Your task to perform on an android device: Open calendar and show me the fourth week of next month Image 0: 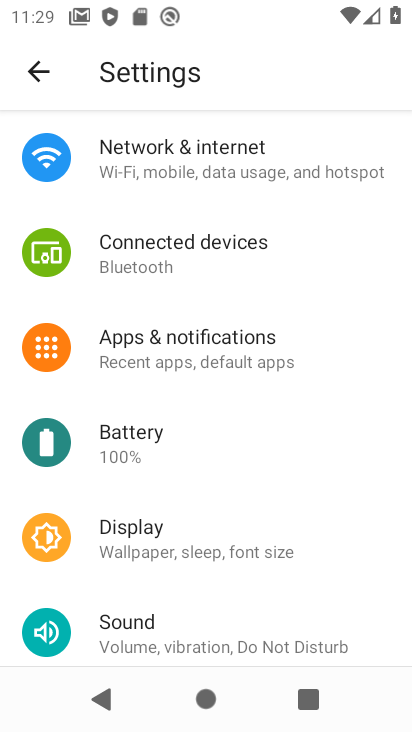
Step 0: press home button
Your task to perform on an android device: Open calendar and show me the fourth week of next month Image 1: 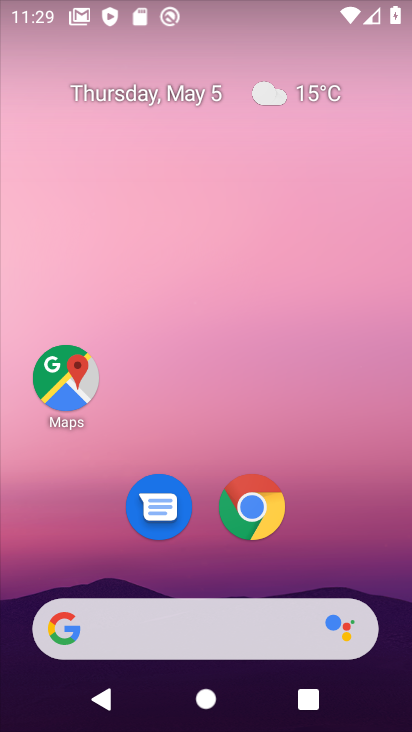
Step 1: drag from (322, 537) to (252, 139)
Your task to perform on an android device: Open calendar and show me the fourth week of next month Image 2: 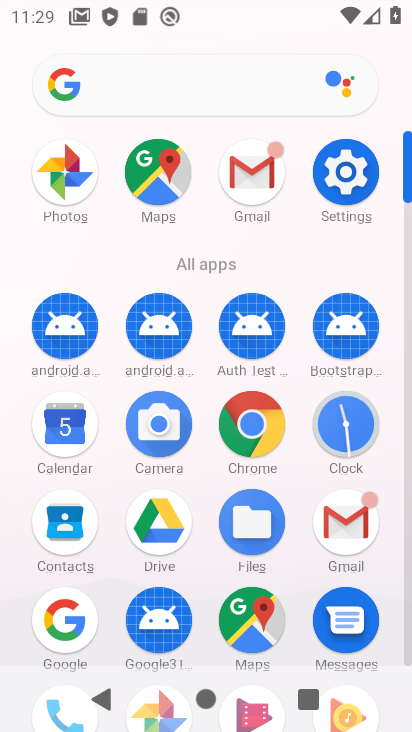
Step 2: click (69, 429)
Your task to perform on an android device: Open calendar and show me the fourth week of next month Image 3: 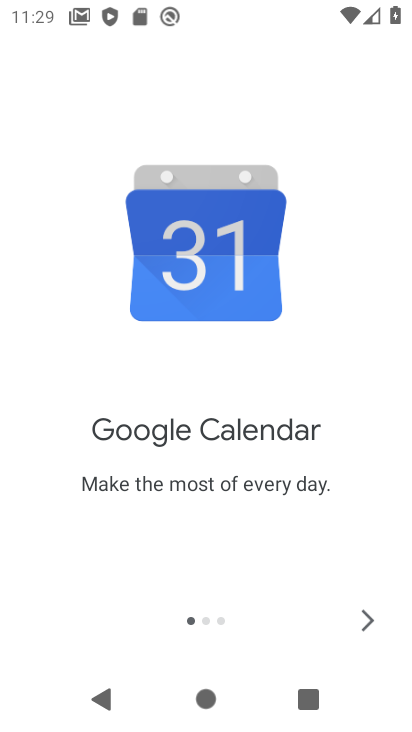
Step 3: click (368, 616)
Your task to perform on an android device: Open calendar and show me the fourth week of next month Image 4: 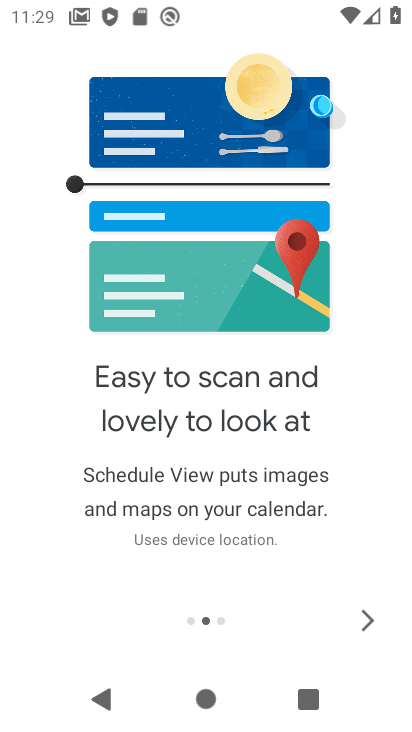
Step 4: click (368, 616)
Your task to perform on an android device: Open calendar and show me the fourth week of next month Image 5: 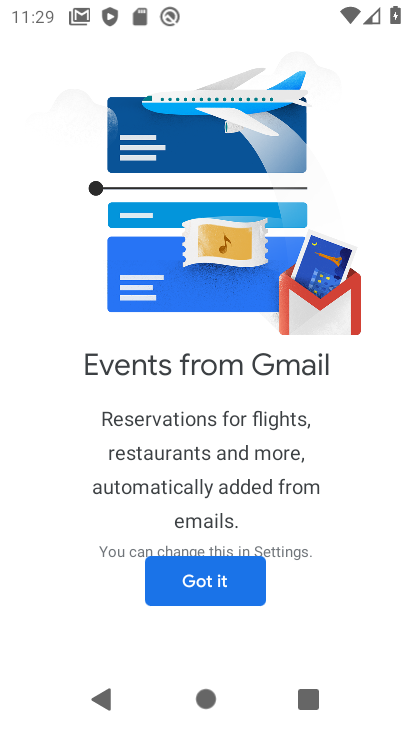
Step 5: click (207, 581)
Your task to perform on an android device: Open calendar and show me the fourth week of next month Image 6: 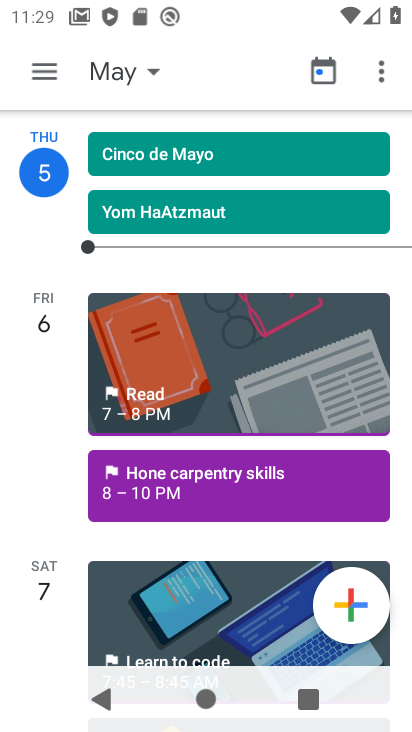
Step 6: click (141, 69)
Your task to perform on an android device: Open calendar and show me the fourth week of next month Image 7: 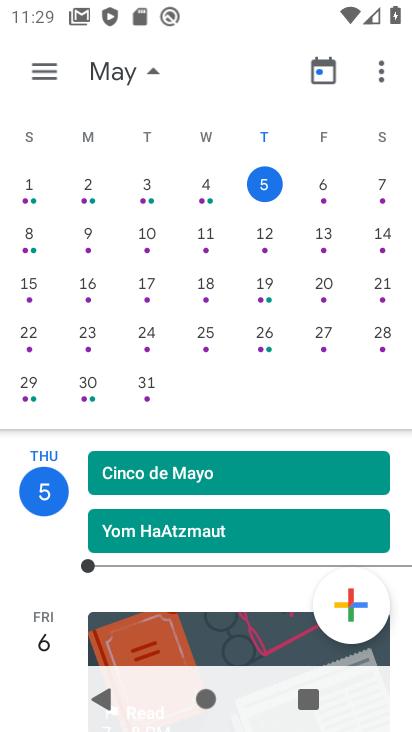
Step 7: drag from (351, 245) to (4, 317)
Your task to perform on an android device: Open calendar and show me the fourth week of next month Image 8: 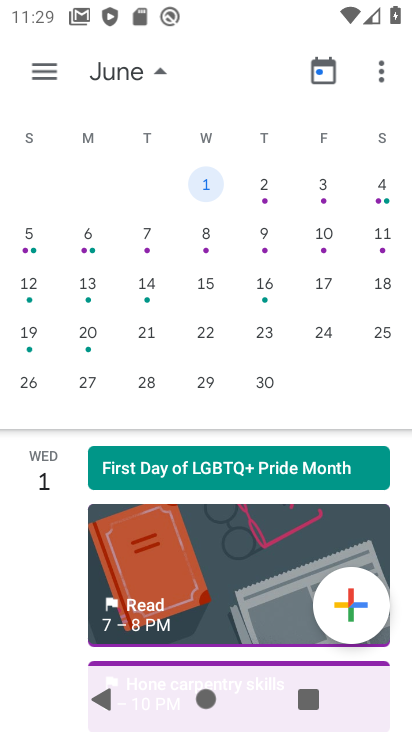
Step 8: click (42, 74)
Your task to perform on an android device: Open calendar and show me the fourth week of next month Image 9: 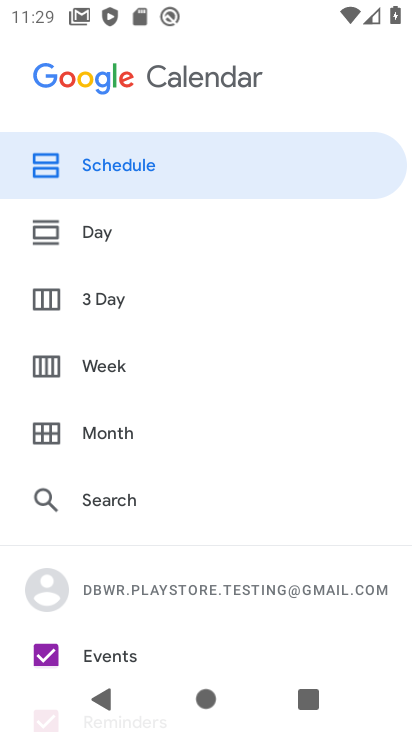
Step 9: click (93, 363)
Your task to perform on an android device: Open calendar and show me the fourth week of next month Image 10: 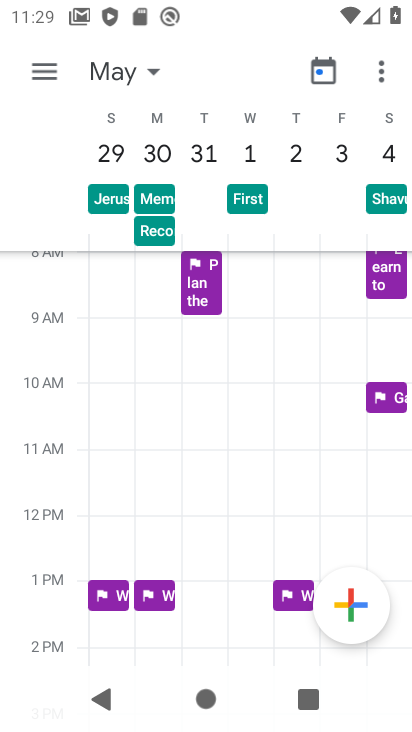
Step 10: click (152, 66)
Your task to perform on an android device: Open calendar and show me the fourth week of next month Image 11: 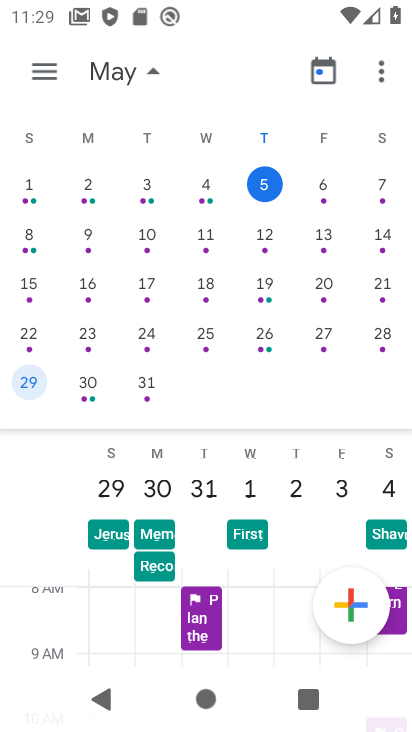
Step 11: drag from (361, 259) to (2, 277)
Your task to perform on an android device: Open calendar and show me the fourth week of next month Image 12: 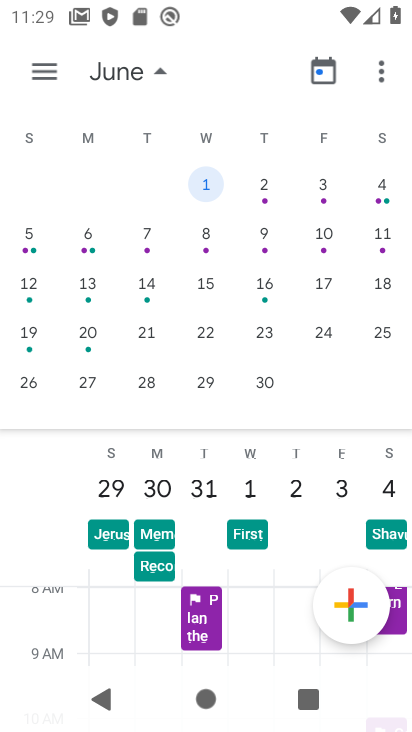
Step 12: click (143, 333)
Your task to perform on an android device: Open calendar and show me the fourth week of next month Image 13: 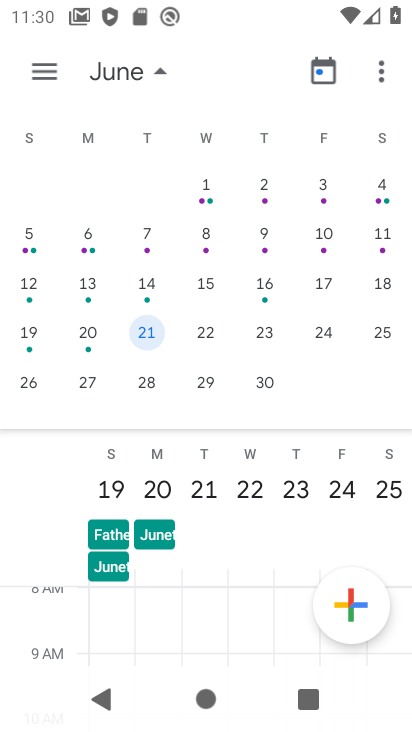
Step 13: task complete